Your task to perform on an android device: clear history in the chrome app Image 0: 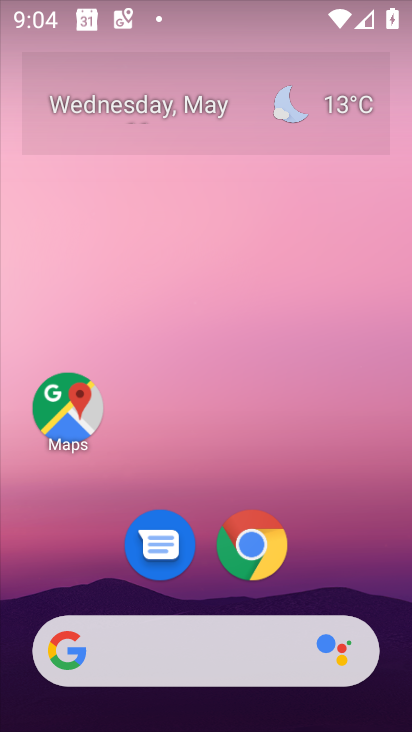
Step 0: drag from (343, 557) to (250, 13)
Your task to perform on an android device: clear history in the chrome app Image 1: 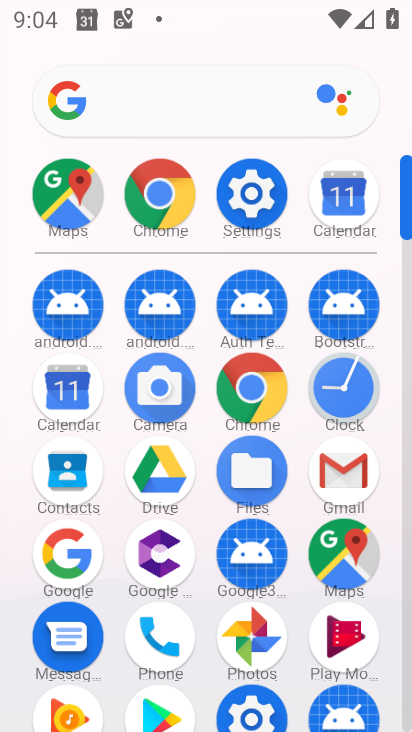
Step 1: drag from (9, 630) to (10, 392)
Your task to perform on an android device: clear history in the chrome app Image 2: 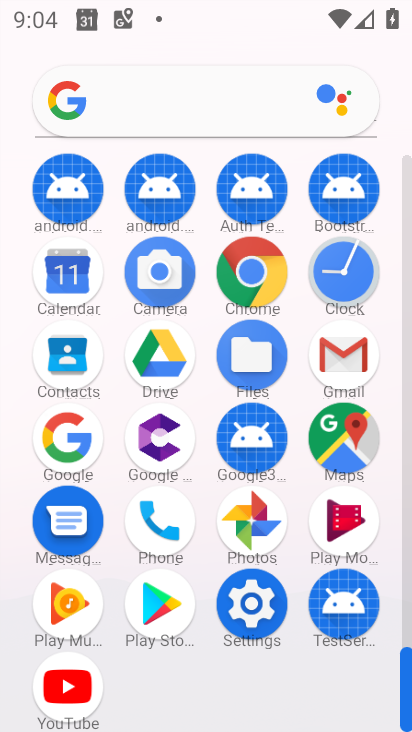
Step 2: click (249, 268)
Your task to perform on an android device: clear history in the chrome app Image 3: 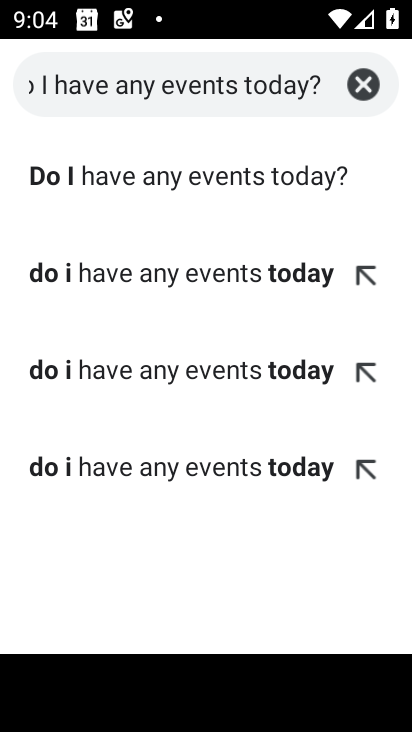
Step 3: click (363, 84)
Your task to perform on an android device: clear history in the chrome app Image 4: 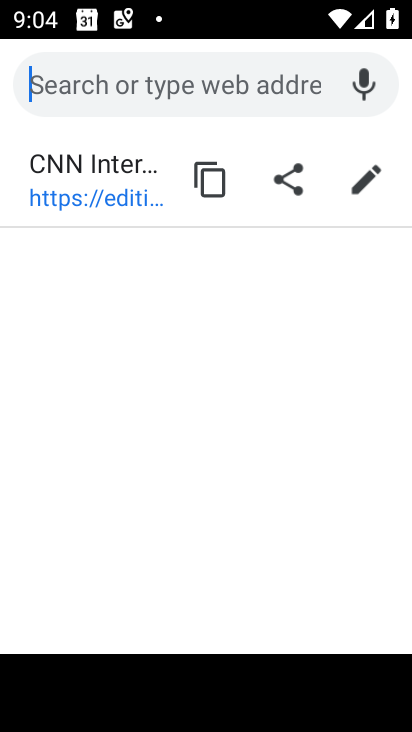
Step 4: press back button
Your task to perform on an android device: clear history in the chrome app Image 5: 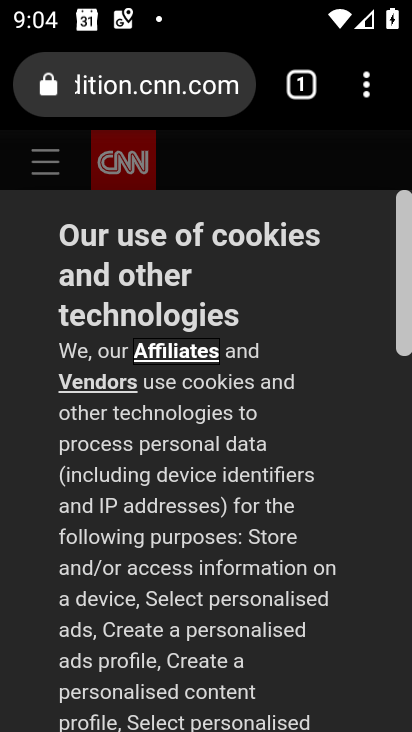
Step 5: drag from (370, 82) to (219, 487)
Your task to perform on an android device: clear history in the chrome app Image 6: 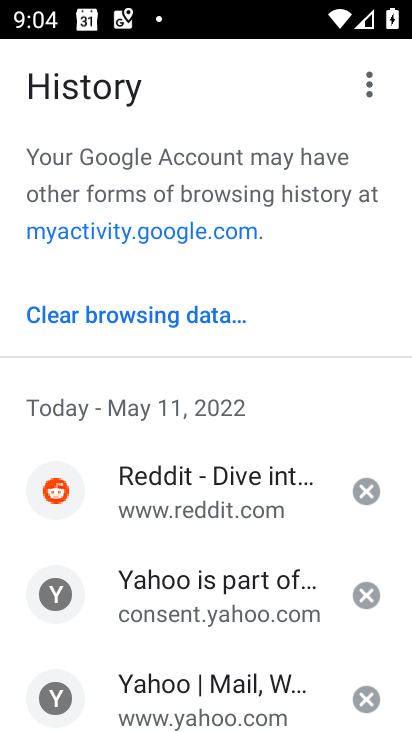
Step 6: click (175, 310)
Your task to perform on an android device: clear history in the chrome app Image 7: 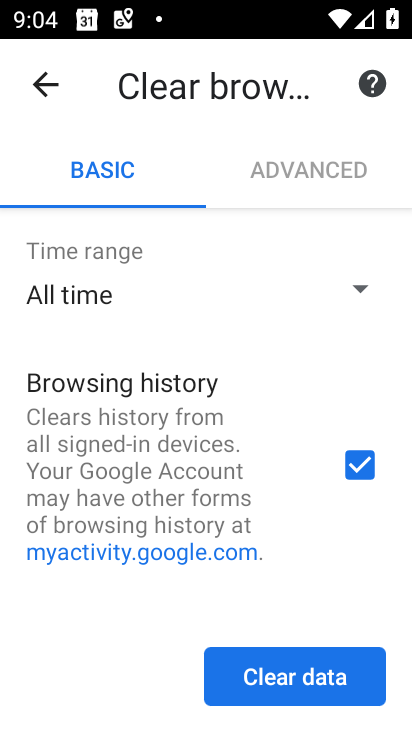
Step 7: click (279, 675)
Your task to perform on an android device: clear history in the chrome app Image 8: 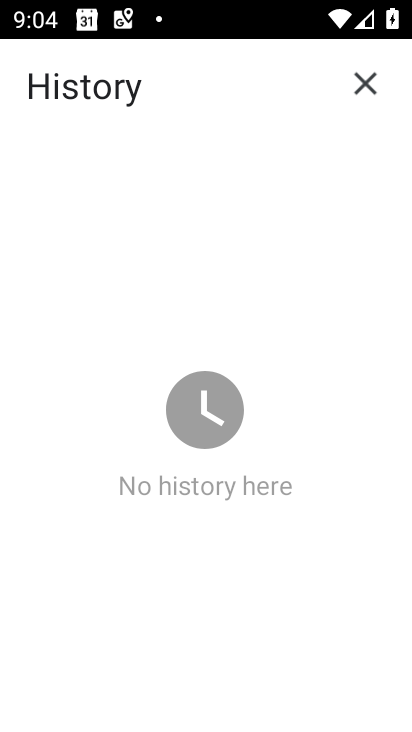
Step 8: task complete